Your task to perform on an android device: turn on notifications settings in the gmail app Image 0: 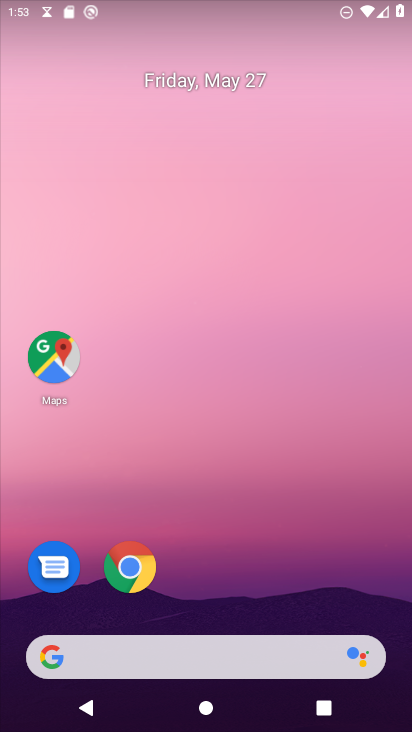
Step 0: drag from (250, 603) to (229, 134)
Your task to perform on an android device: turn on notifications settings in the gmail app Image 1: 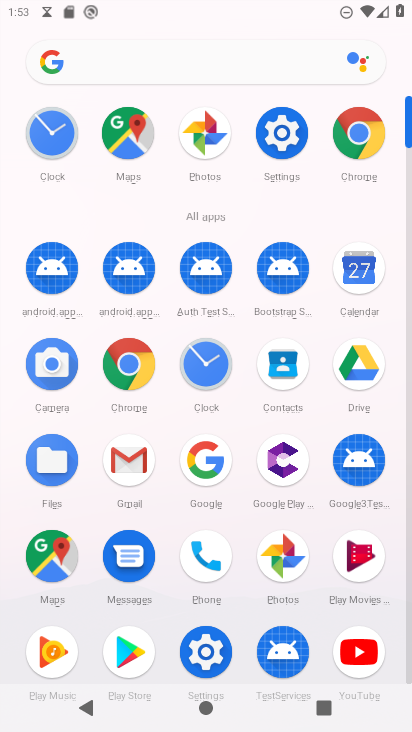
Step 1: click (123, 464)
Your task to perform on an android device: turn on notifications settings in the gmail app Image 2: 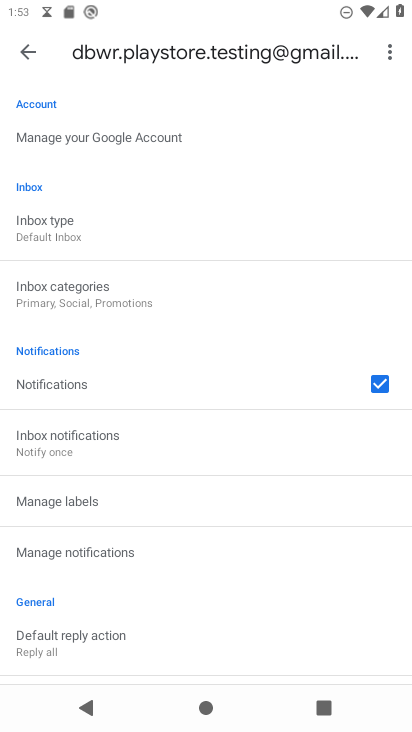
Step 2: click (186, 543)
Your task to perform on an android device: turn on notifications settings in the gmail app Image 3: 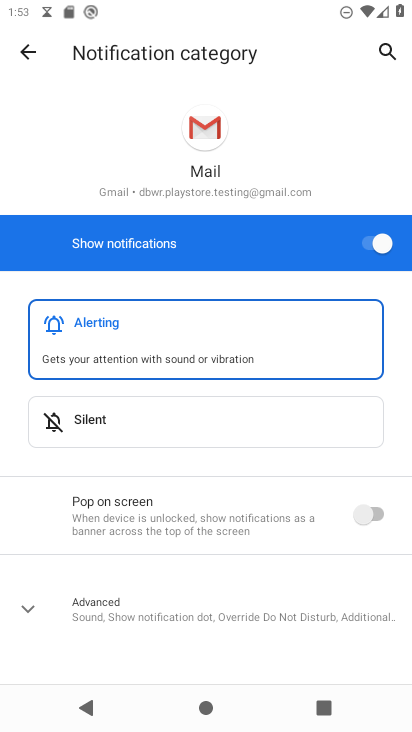
Step 3: drag from (215, 563) to (180, 297)
Your task to perform on an android device: turn on notifications settings in the gmail app Image 4: 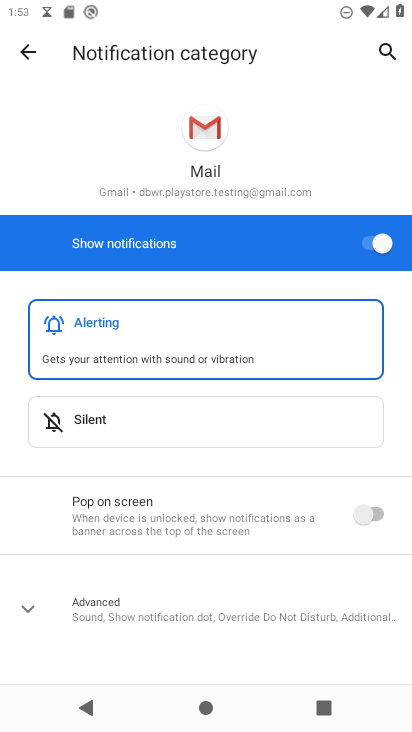
Step 4: click (374, 509)
Your task to perform on an android device: turn on notifications settings in the gmail app Image 5: 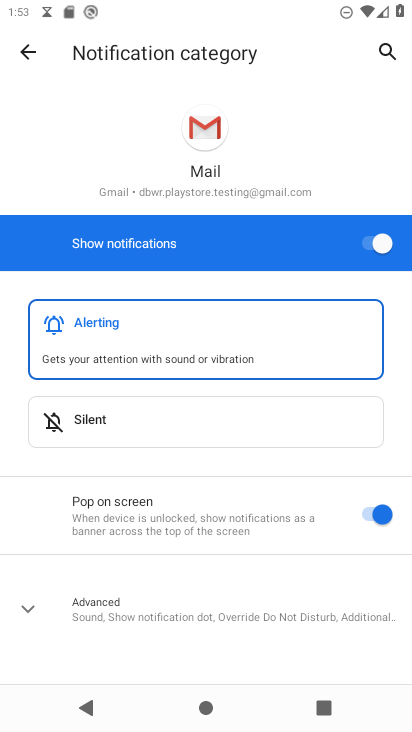
Step 5: task complete